Your task to perform on an android device: toggle notification dots Image 0: 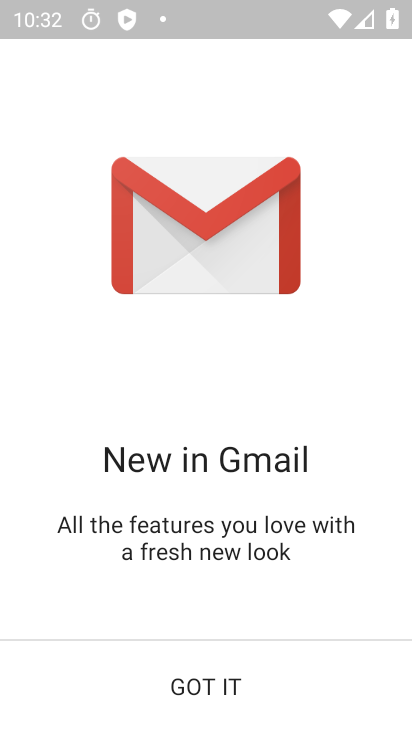
Step 0: press home button
Your task to perform on an android device: toggle notification dots Image 1: 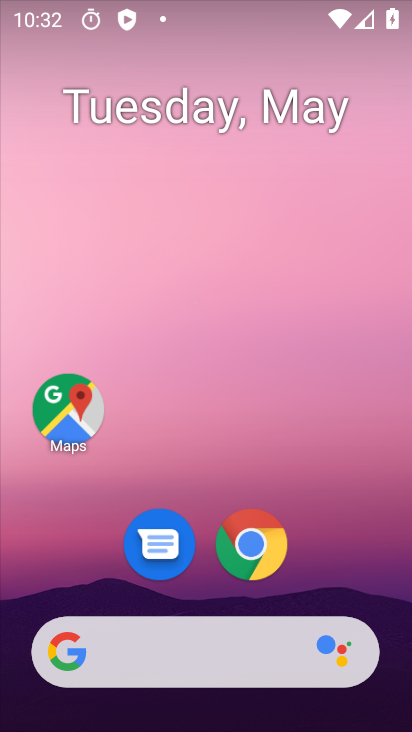
Step 1: drag from (360, 589) to (225, 25)
Your task to perform on an android device: toggle notification dots Image 2: 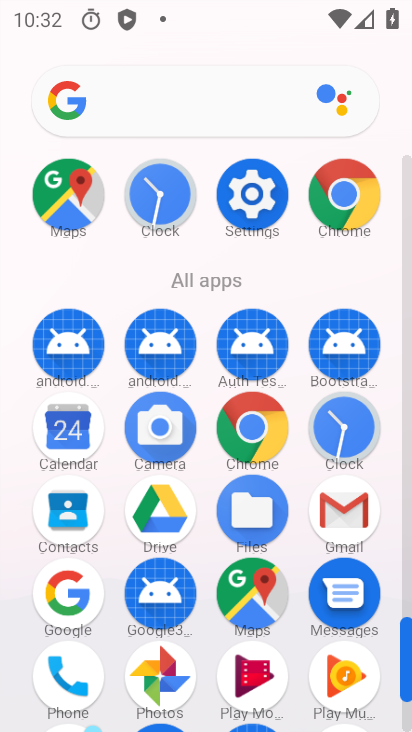
Step 2: click (251, 197)
Your task to perform on an android device: toggle notification dots Image 3: 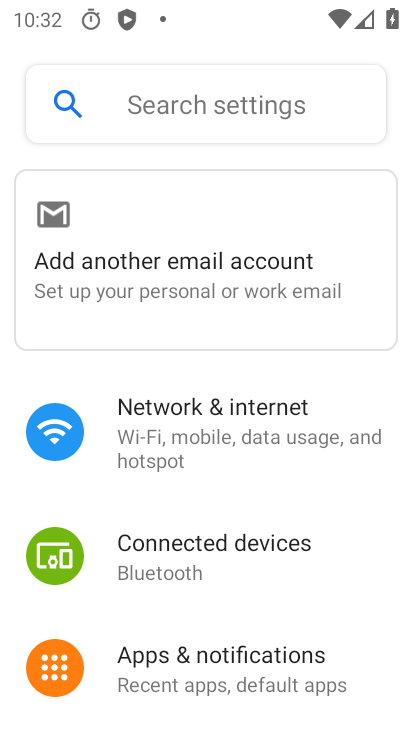
Step 3: click (293, 666)
Your task to perform on an android device: toggle notification dots Image 4: 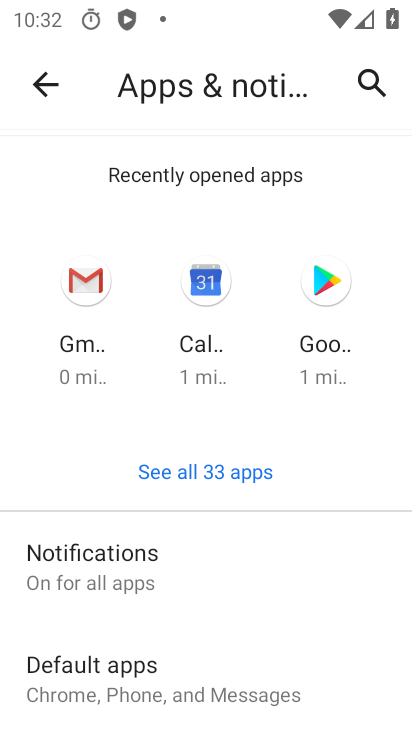
Step 4: click (186, 562)
Your task to perform on an android device: toggle notification dots Image 5: 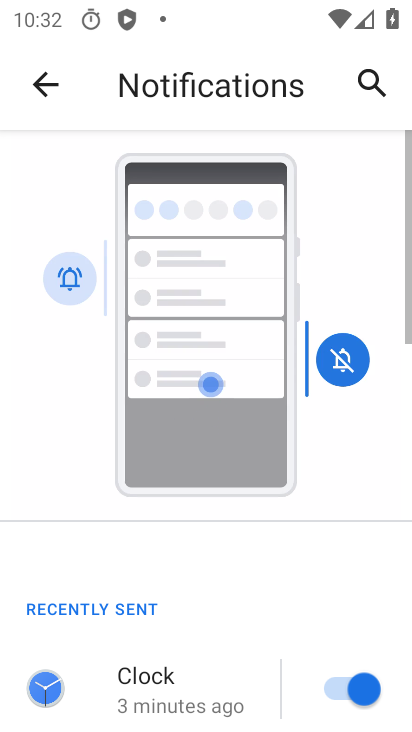
Step 5: drag from (224, 655) to (194, 171)
Your task to perform on an android device: toggle notification dots Image 6: 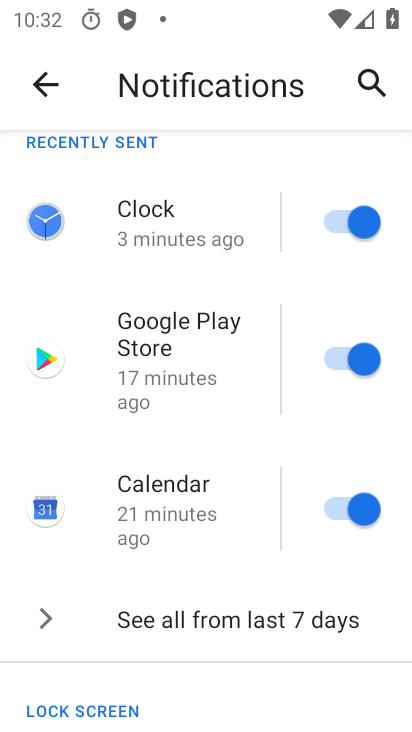
Step 6: drag from (268, 573) to (244, 137)
Your task to perform on an android device: toggle notification dots Image 7: 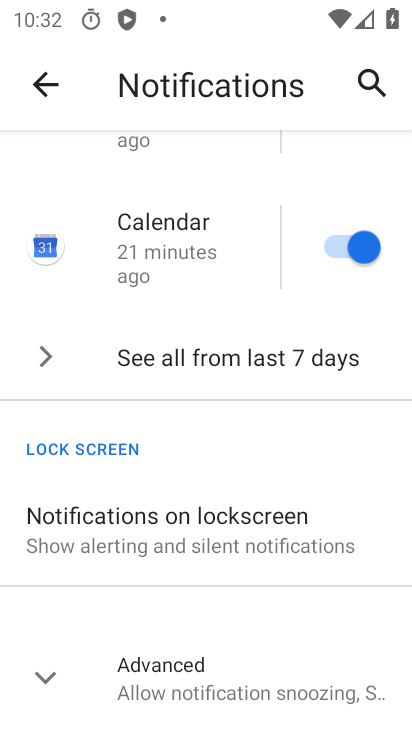
Step 7: click (266, 681)
Your task to perform on an android device: toggle notification dots Image 8: 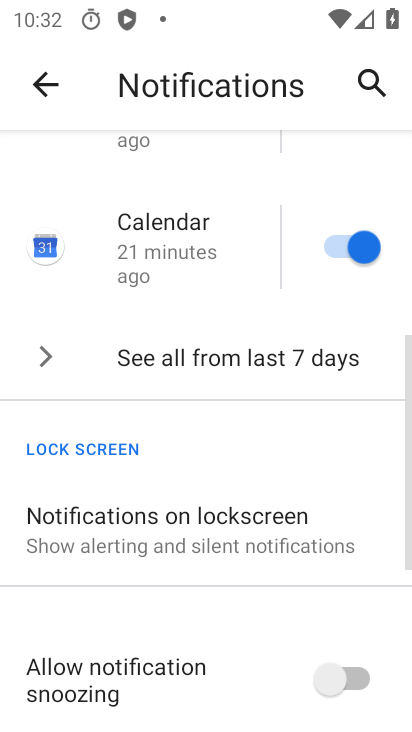
Step 8: drag from (267, 602) to (197, 90)
Your task to perform on an android device: toggle notification dots Image 9: 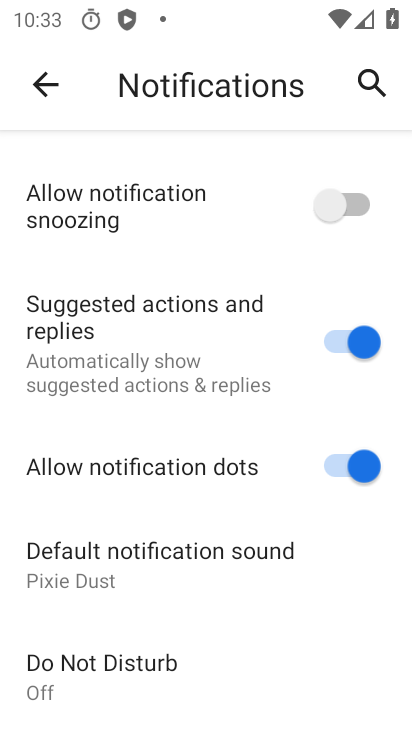
Step 9: click (340, 471)
Your task to perform on an android device: toggle notification dots Image 10: 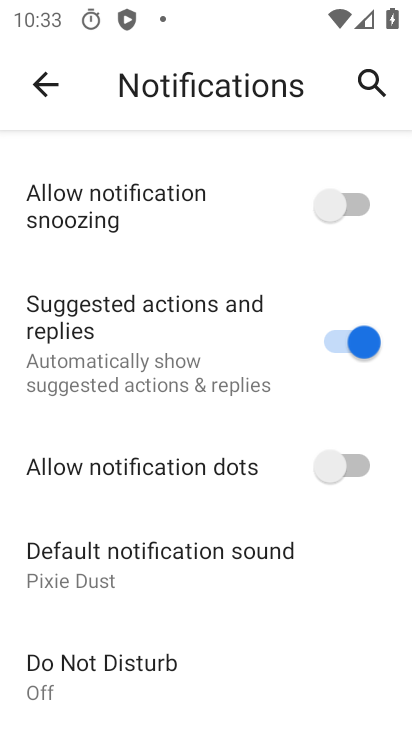
Step 10: task complete